Your task to perform on an android device: Open calendar and show me the third week of next month Image 0: 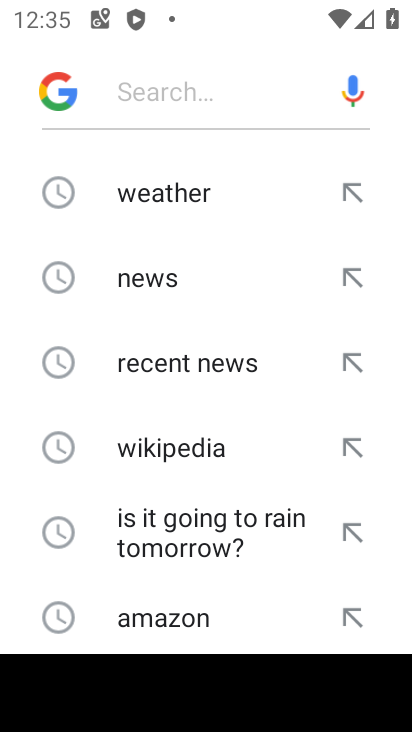
Step 0: press home button
Your task to perform on an android device: Open calendar and show me the third week of next month Image 1: 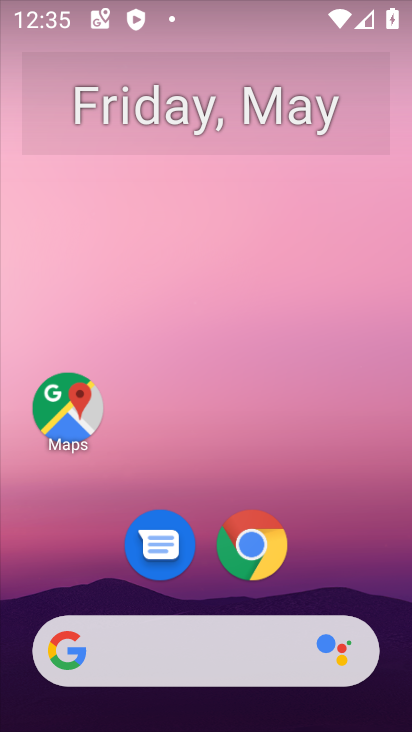
Step 1: drag from (316, 540) to (316, 235)
Your task to perform on an android device: Open calendar and show me the third week of next month Image 2: 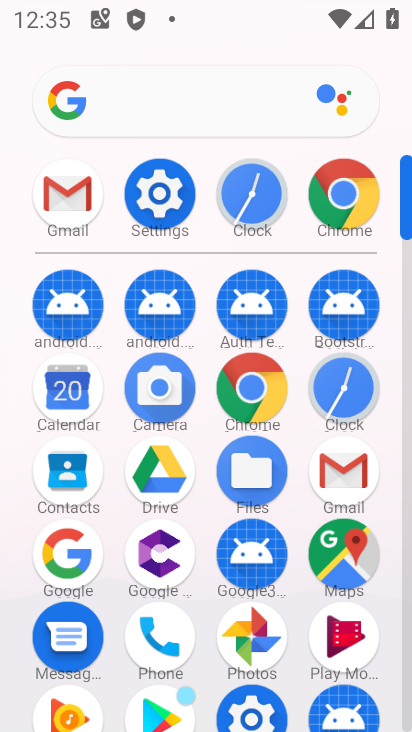
Step 2: click (67, 399)
Your task to perform on an android device: Open calendar and show me the third week of next month Image 3: 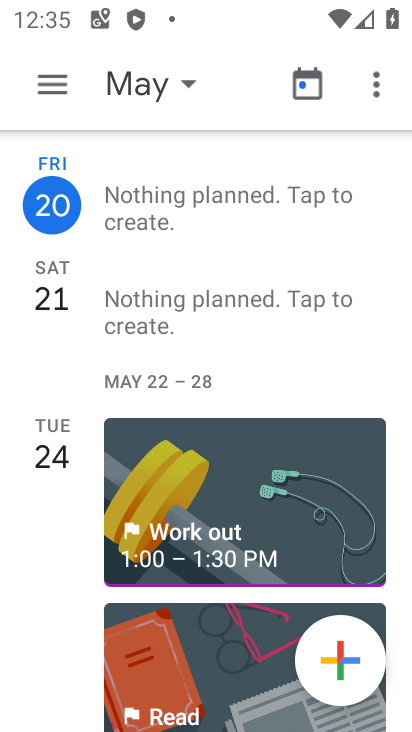
Step 3: drag from (223, 471) to (319, 123)
Your task to perform on an android device: Open calendar and show me the third week of next month Image 4: 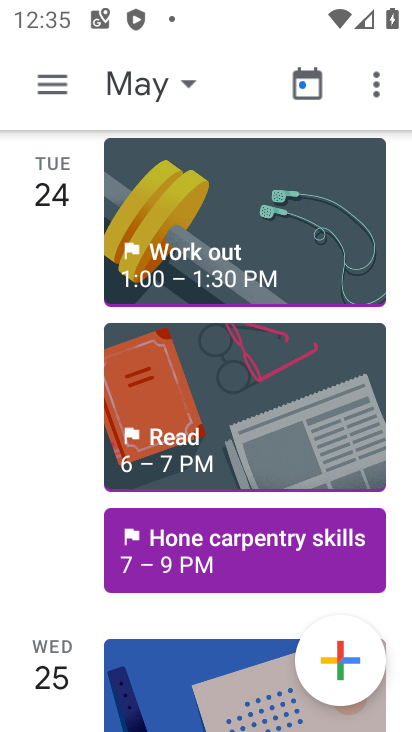
Step 4: click (128, 97)
Your task to perform on an android device: Open calendar and show me the third week of next month Image 5: 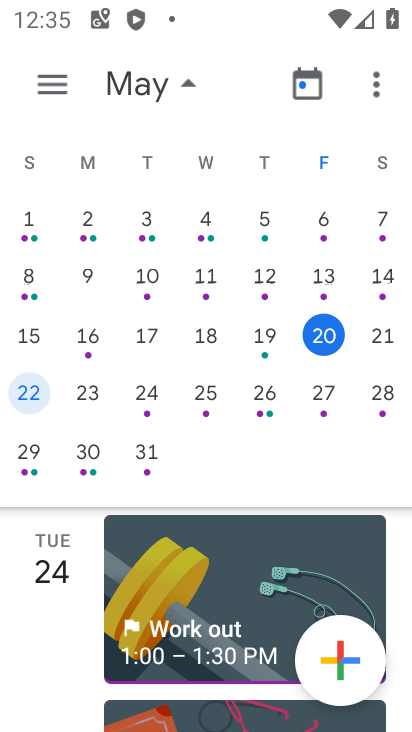
Step 5: task complete